Your task to perform on an android device: Go to privacy settings Image 0: 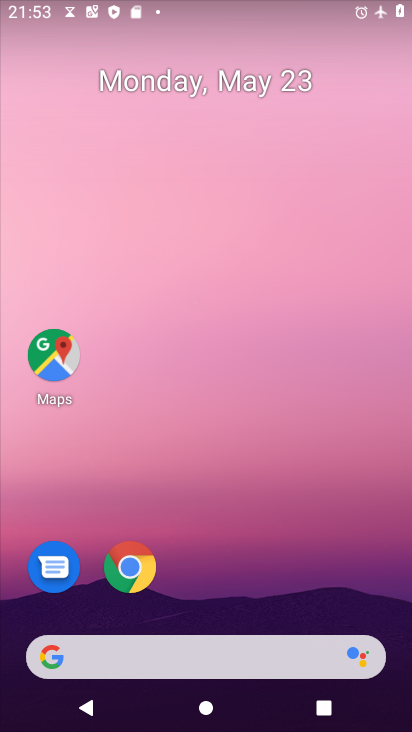
Step 0: drag from (296, 572) to (282, 239)
Your task to perform on an android device: Go to privacy settings Image 1: 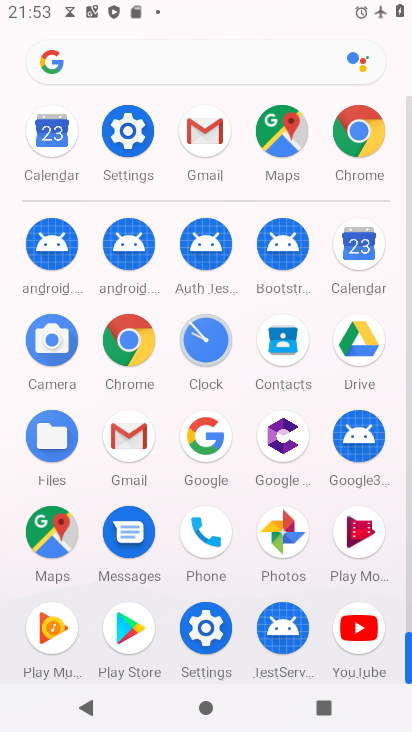
Step 1: click (114, 122)
Your task to perform on an android device: Go to privacy settings Image 2: 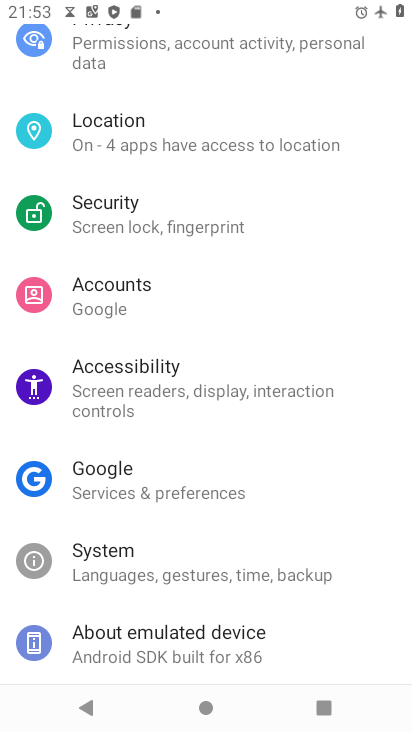
Step 2: drag from (184, 184) to (199, 588)
Your task to perform on an android device: Go to privacy settings Image 3: 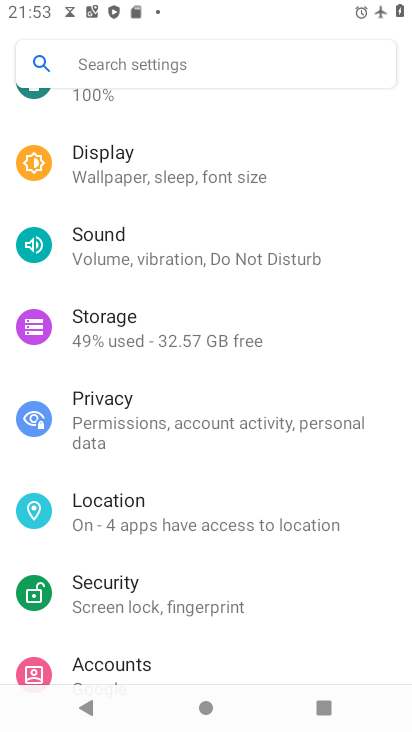
Step 3: click (153, 413)
Your task to perform on an android device: Go to privacy settings Image 4: 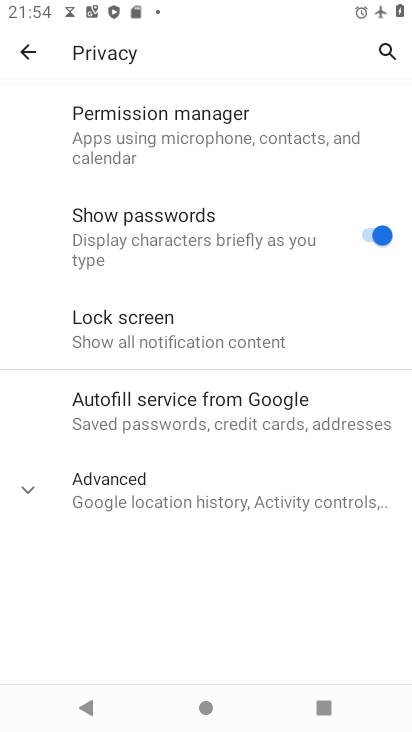
Step 4: task complete